Your task to perform on an android device: open app "Walmart Shopping & Grocery" Image 0: 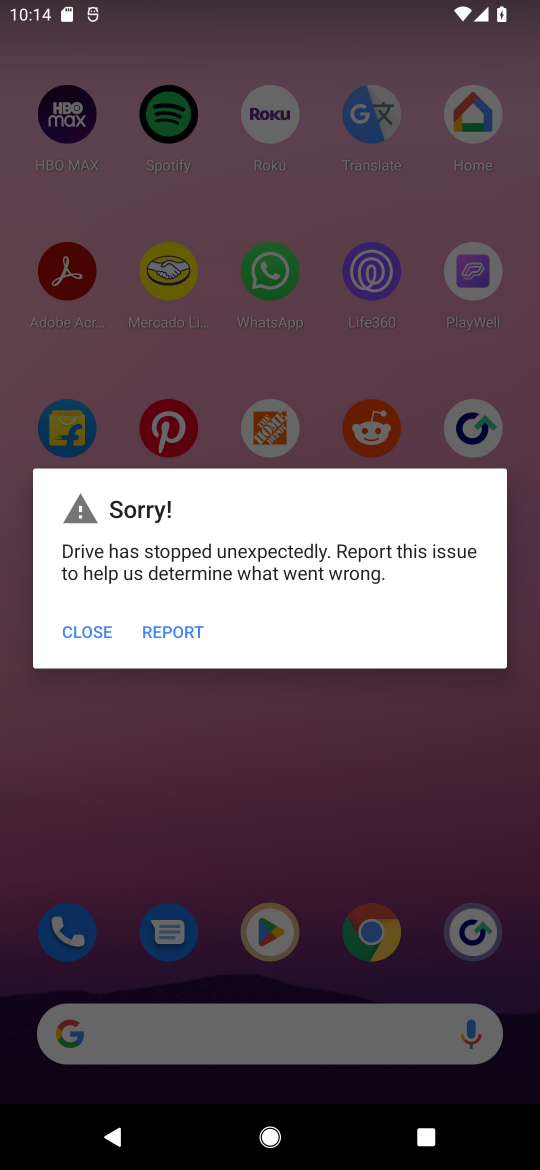
Step 0: click (95, 627)
Your task to perform on an android device: open app "Walmart Shopping & Grocery" Image 1: 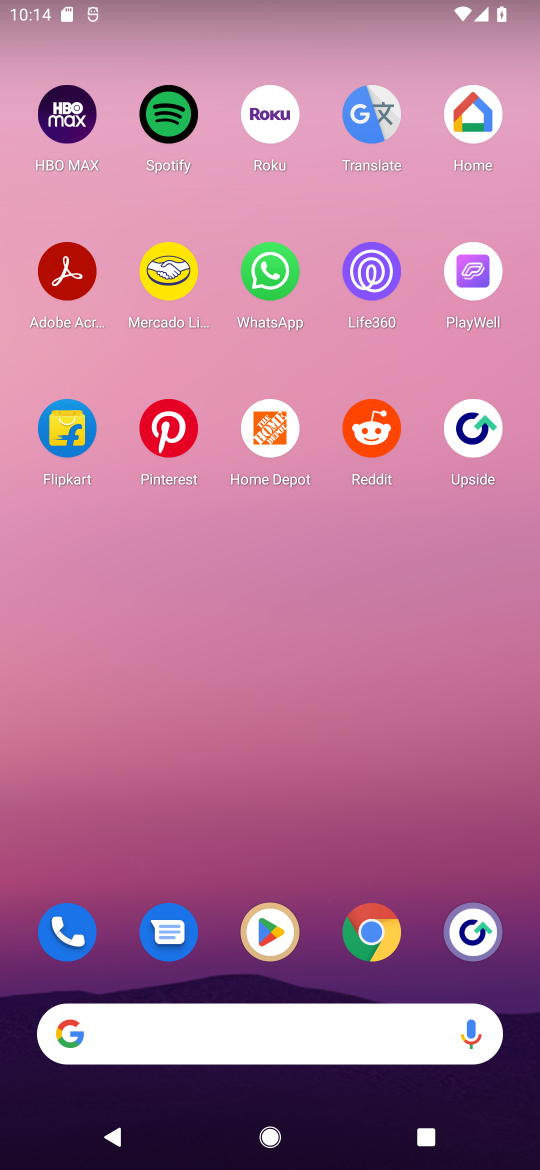
Step 1: click (274, 928)
Your task to perform on an android device: open app "Walmart Shopping & Grocery" Image 2: 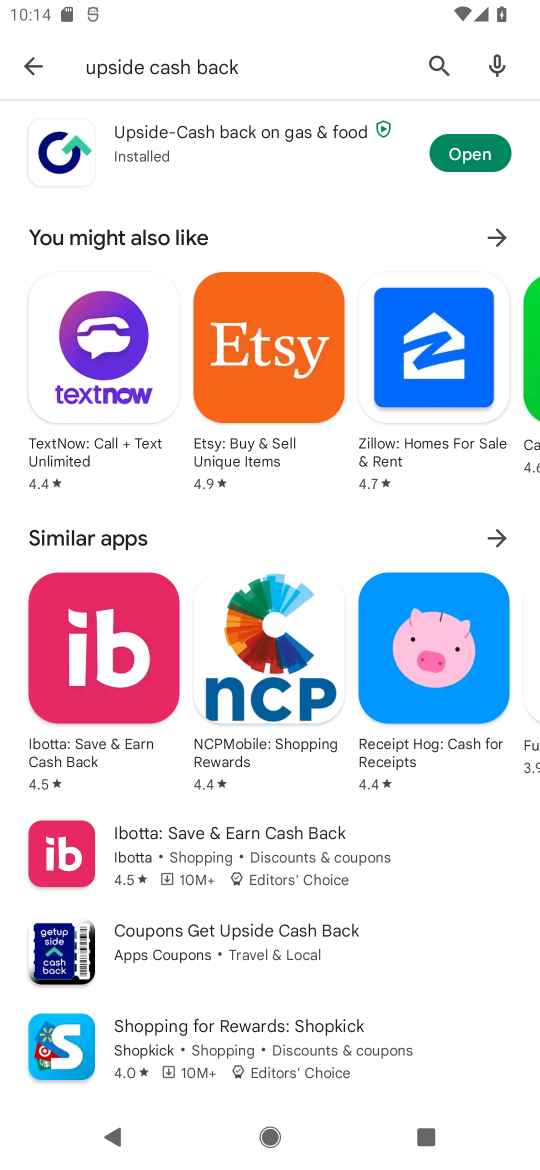
Step 2: click (428, 59)
Your task to perform on an android device: open app "Walmart Shopping & Grocery" Image 3: 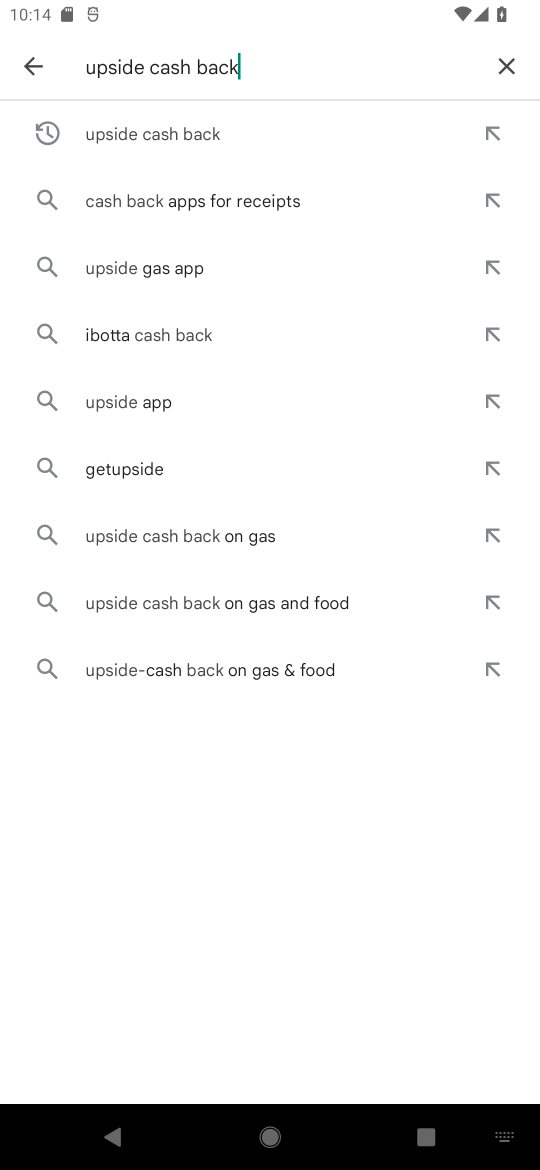
Step 3: click (498, 56)
Your task to perform on an android device: open app "Walmart Shopping & Grocery" Image 4: 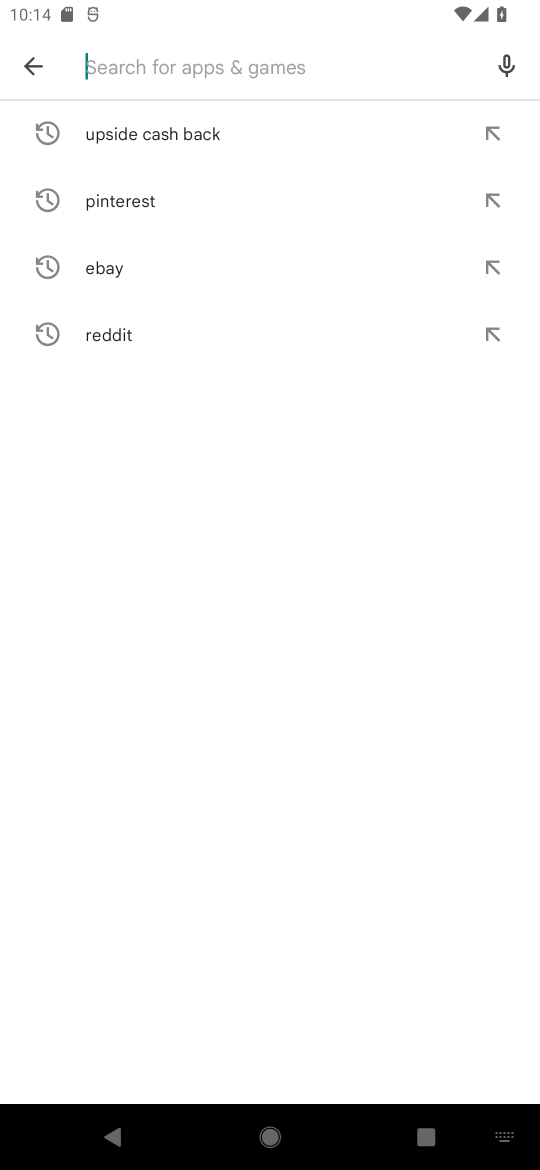
Step 4: click (144, 58)
Your task to perform on an android device: open app "Walmart Shopping & Grocery" Image 5: 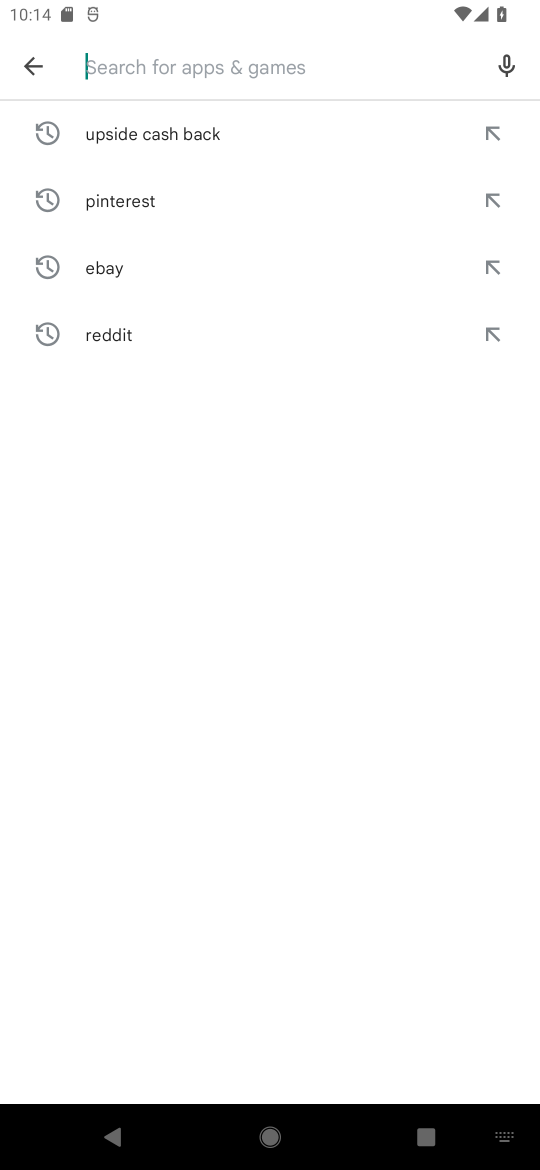
Step 5: type "Walmart Shopping & Grocery"
Your task to perform on an android device: open app "Walmart Shopping & Grocery" Image 6: 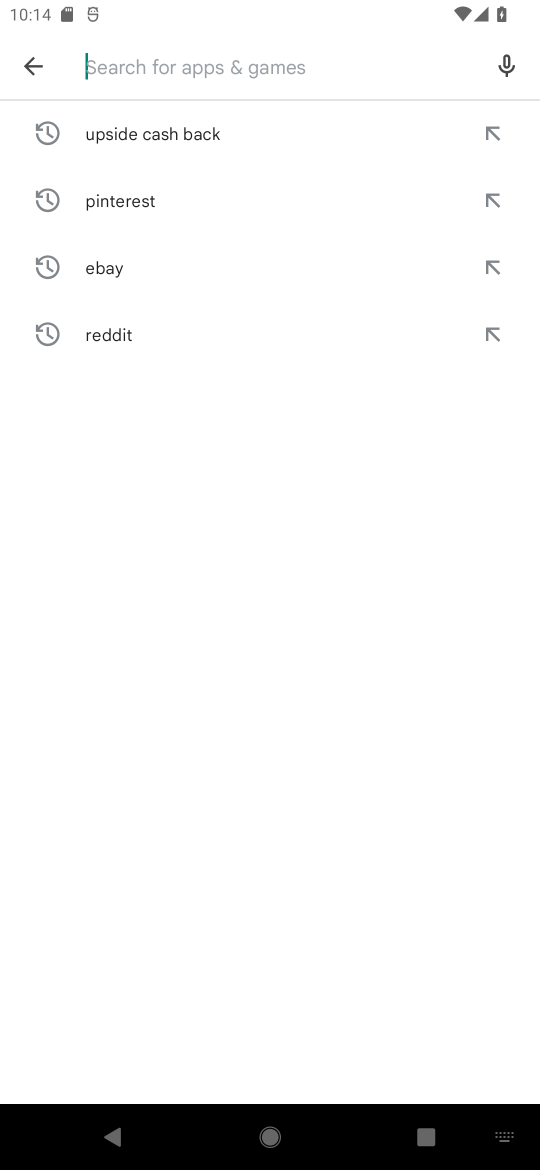
Step 6: click (231, 691)
Your task to perform on an android device: open app "Walmart Shopping & Grocery" Image 7: 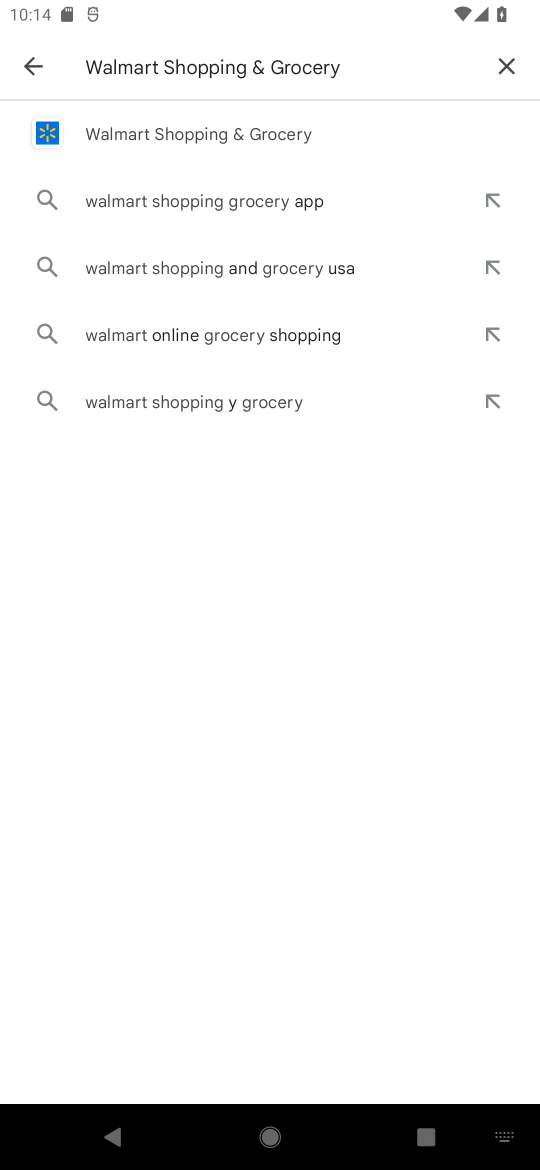
Step 7: click (215, 142)
Your task to perform on an android device: open app "Walmart Shopping & Grocery" Image 8: 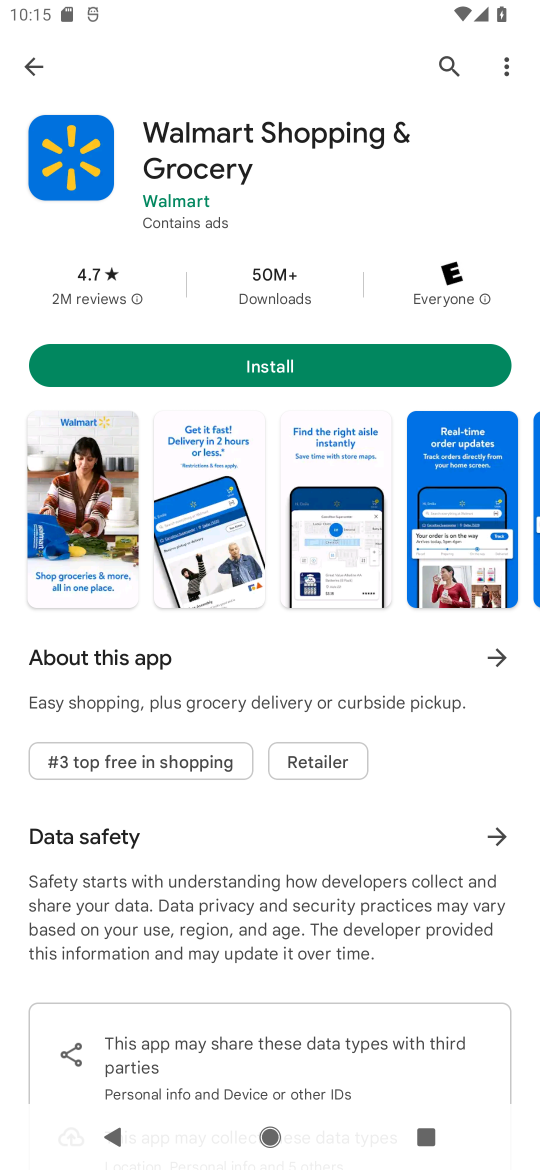
Step 8: task complete